Your task to perform on an android device: make emails show in primary in the gmail app Image 0: 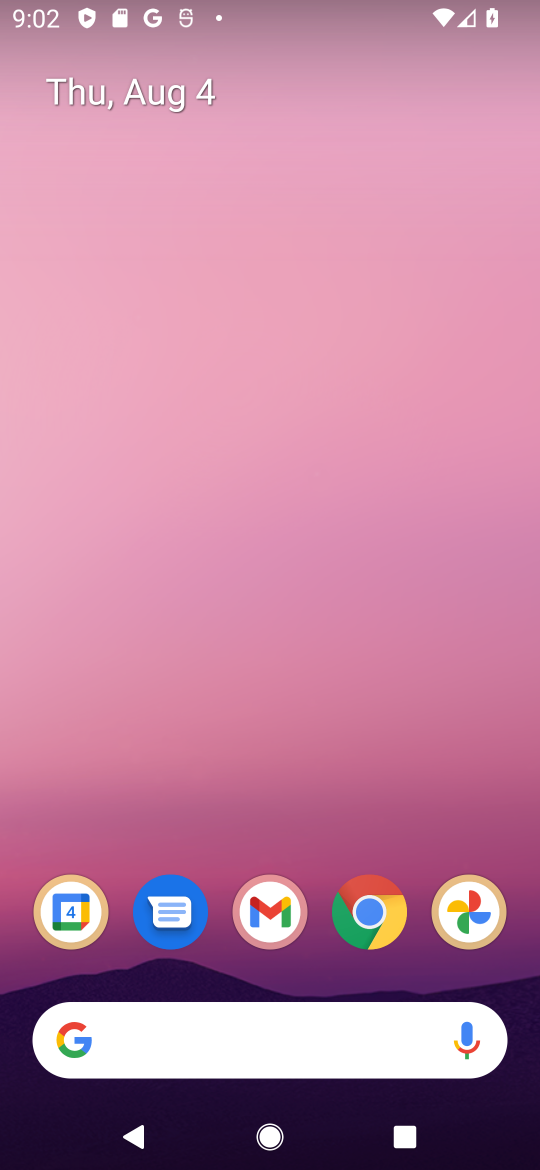
Step 0: click (286, 898)
Your task to perform on an android device: make emails show in primary in the gmail app Image 1: 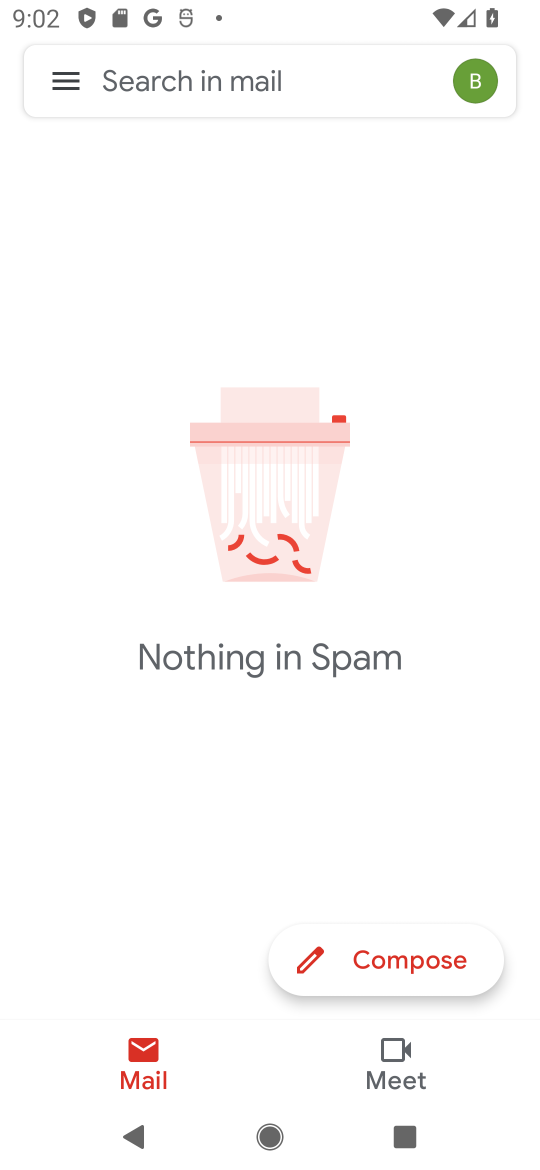
Step 1: click (65, 91)
Your task to perform on an android device: make emails show in primary in the gmail app Image 2: 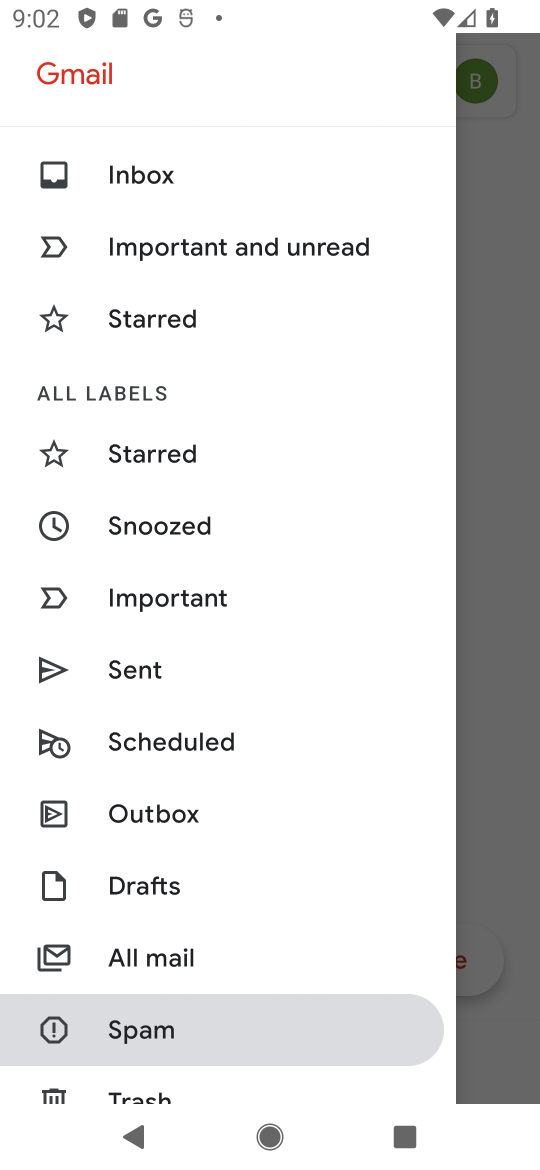
Step 2: drag from (210, 991) to (244, 154)
Your task to perform on an android device: make emails show in primary in the gmail app Image 3: 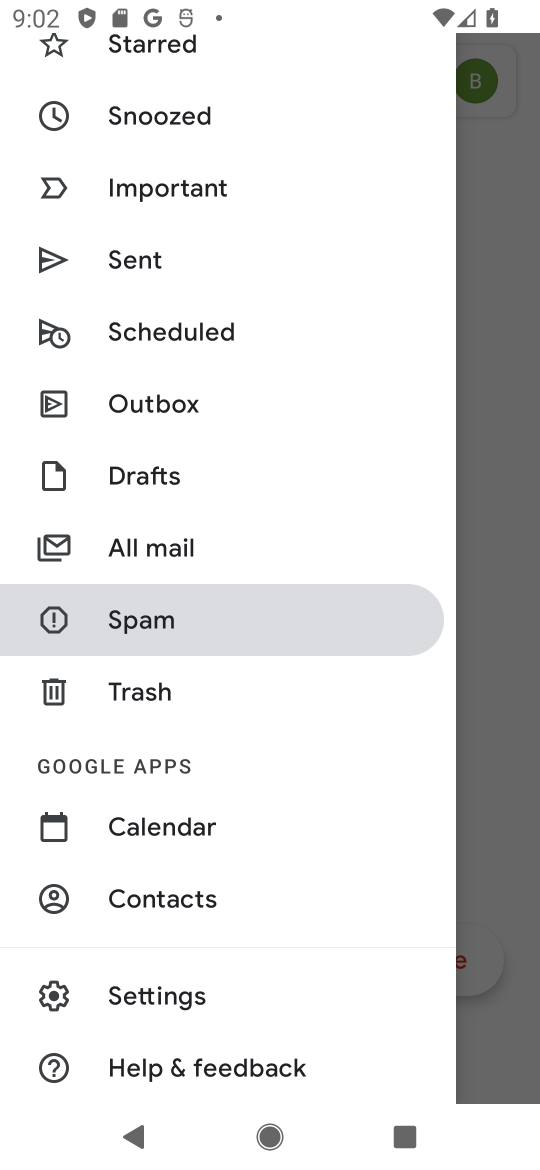
Step 3: click (180, 1006)
Your task to perform on an android device: make emails show in primary in the gmail app Image 4: 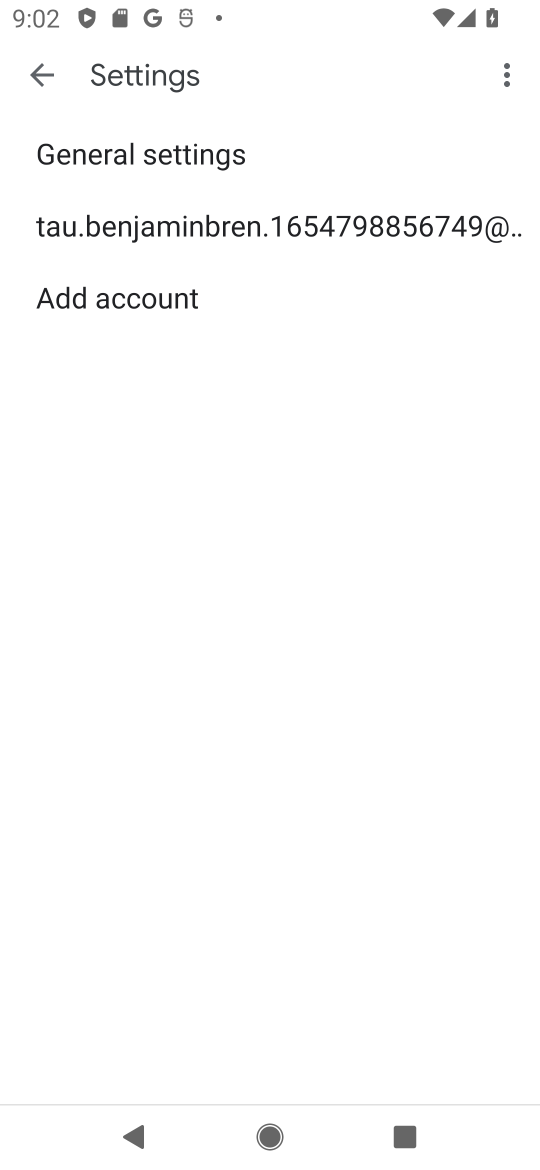
Step 4: click (309, 232)
Your task to perform on an android device: make emails show in primary in the gmail app Image 5: 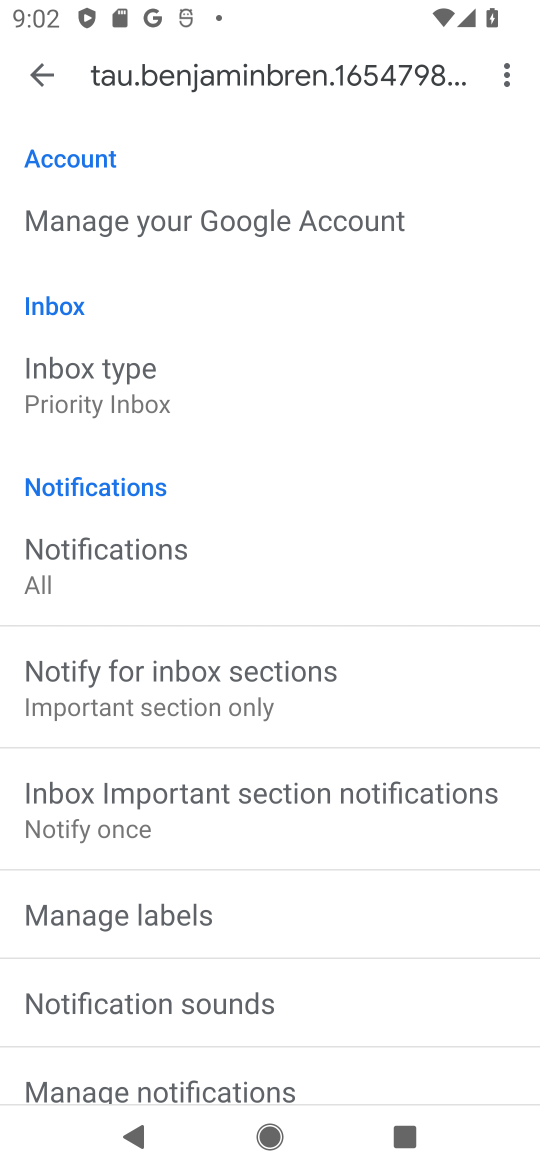
Step 5: drag from (306, 967) to (261, 1002)
Your task to perform on an android device: make emails show in primary in the gmail app Image 6: 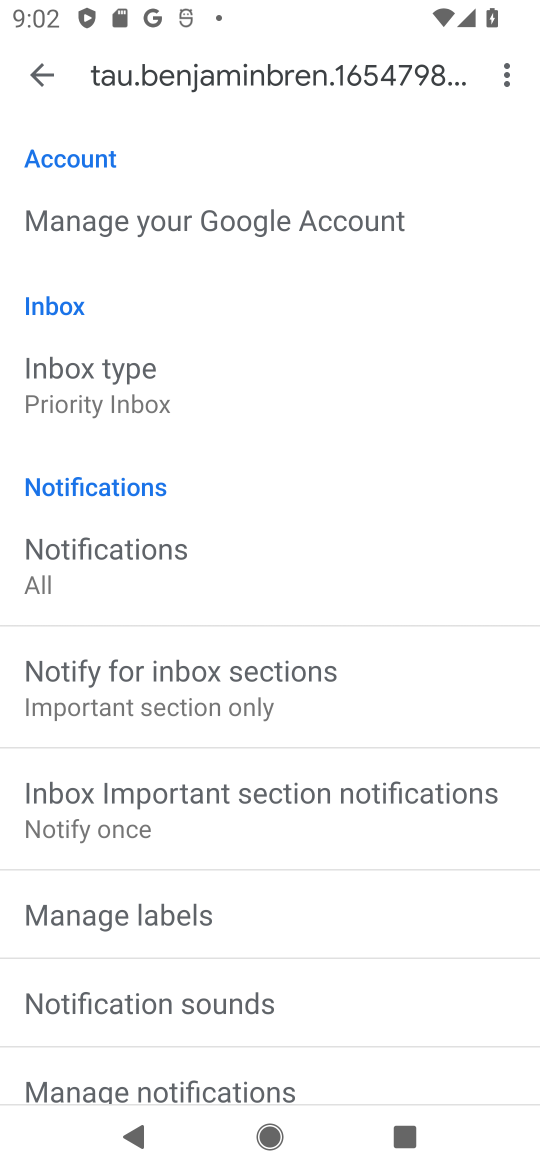
Step 6: click (161, 376)
Your task to perform on an android device: make emails show in primary in the gmail app Image 7: 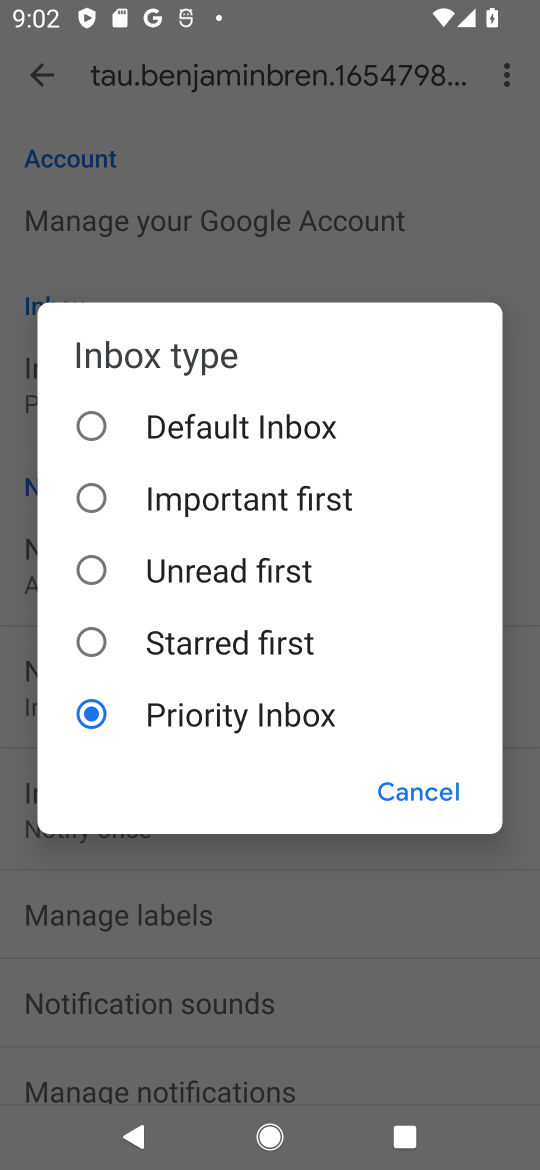
Step 7: click (182, 419)
Your task to perform on an android device: make emails show in primary in the gmail app Image 8: 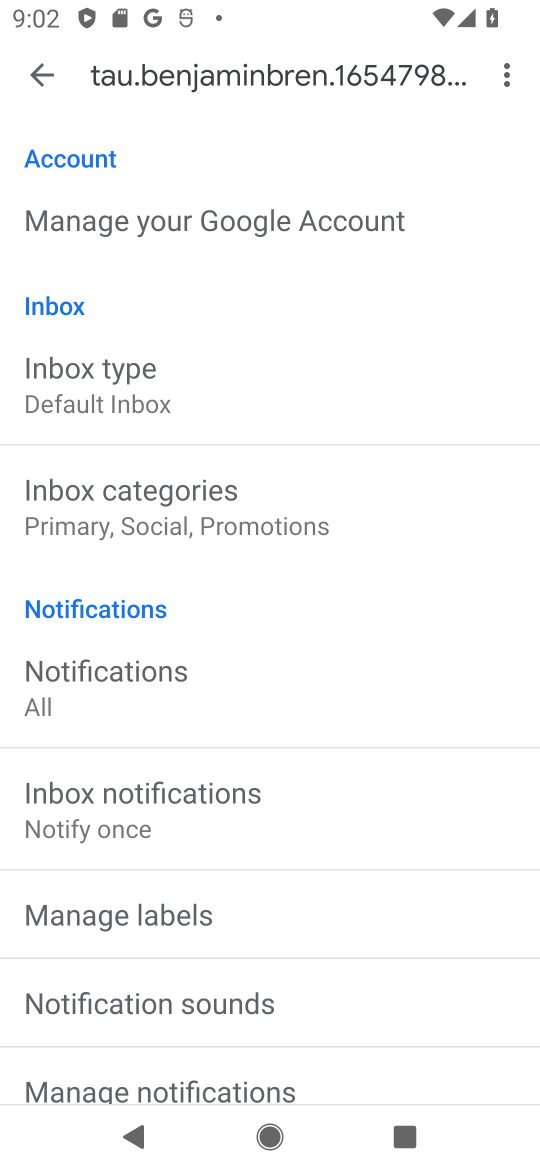
Step 8: task complete